Your task to perform on an android device: open app "Truecaller" (install if not already installed) and go to login screen Image 0: 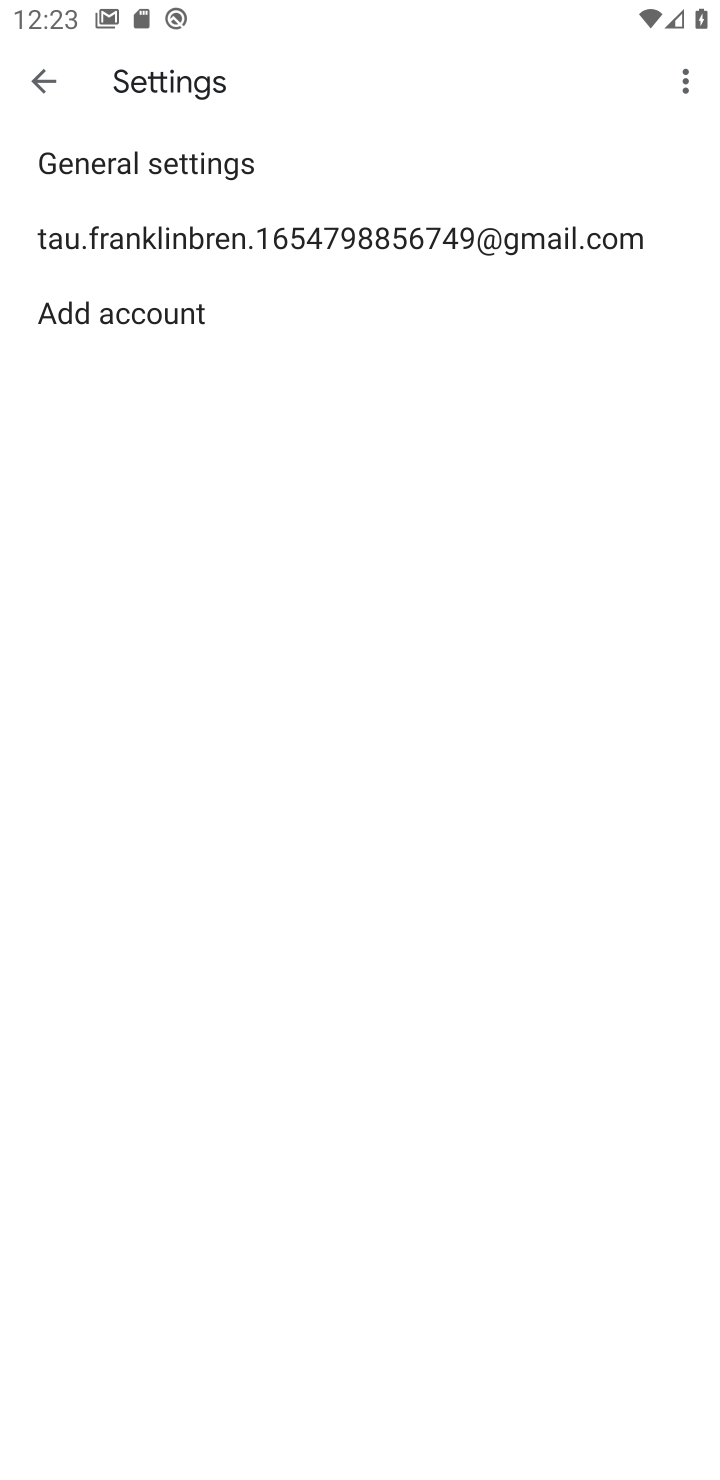
Step 0: press home button
Your task to perform on an android device: open app "Truecaller" (install if not already installed) and go to login screen Image 1: 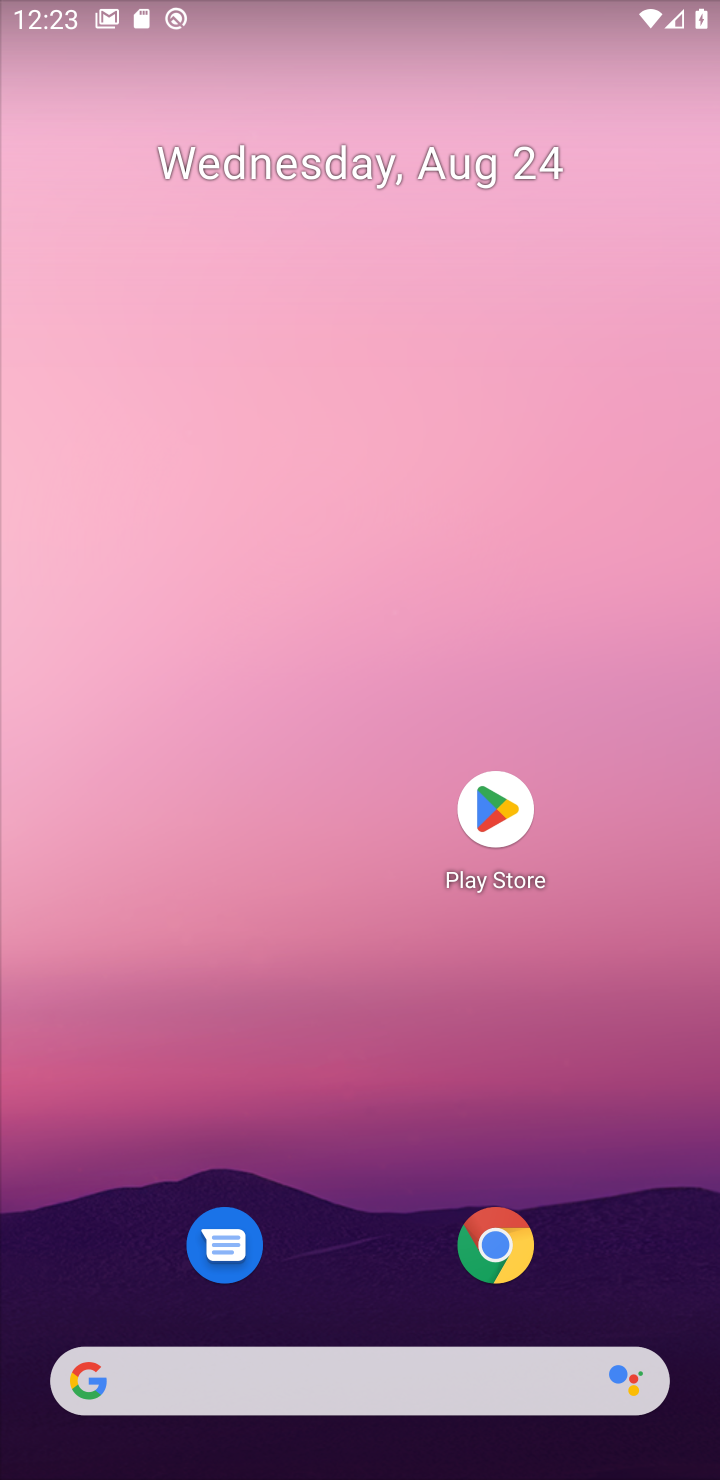
Step 1: click (506, 812)
Your task to perform on an android device: open app "Truecaller" (install if not already installed) and go to login screen Image 2: 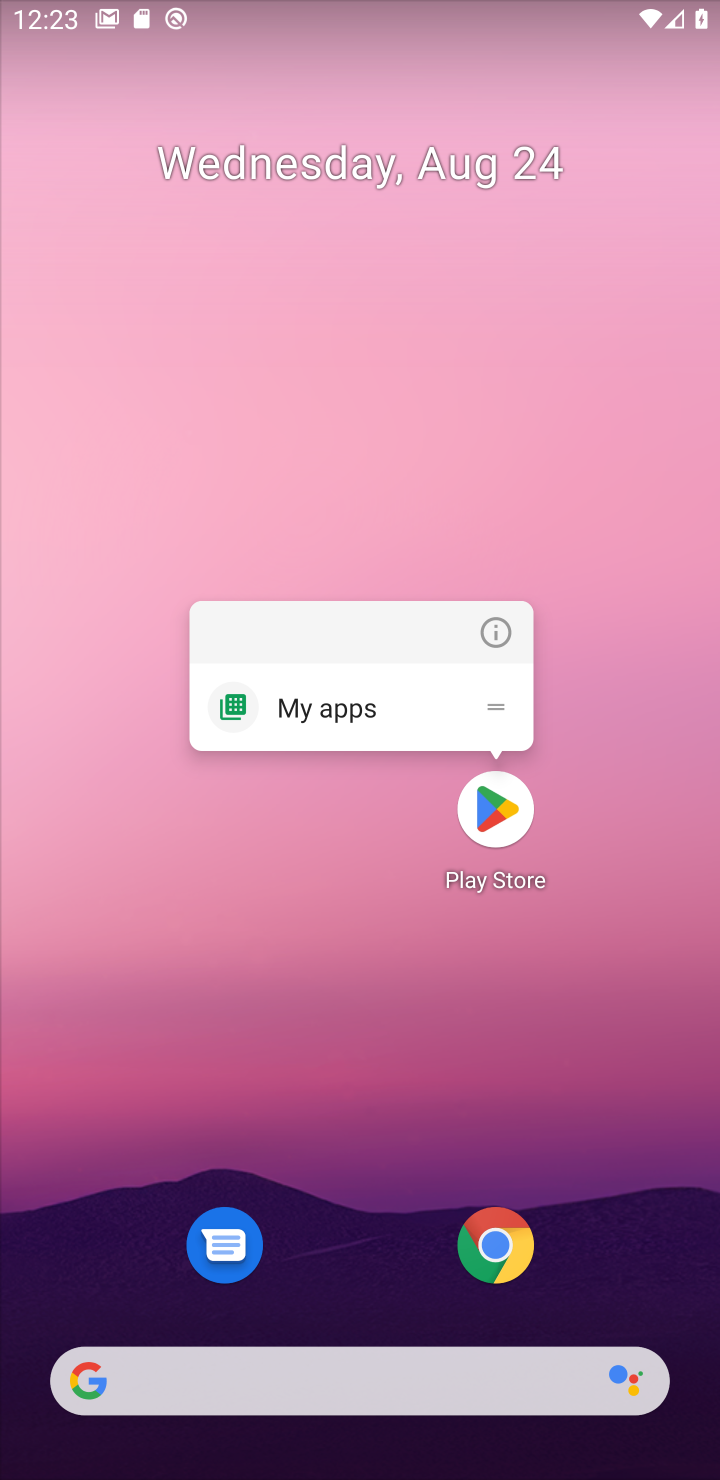
Step 2: click (506, 821)
Your task to perform on an android device: open app "Truecaller" (install if not already installed) and go to login screen Image 3: 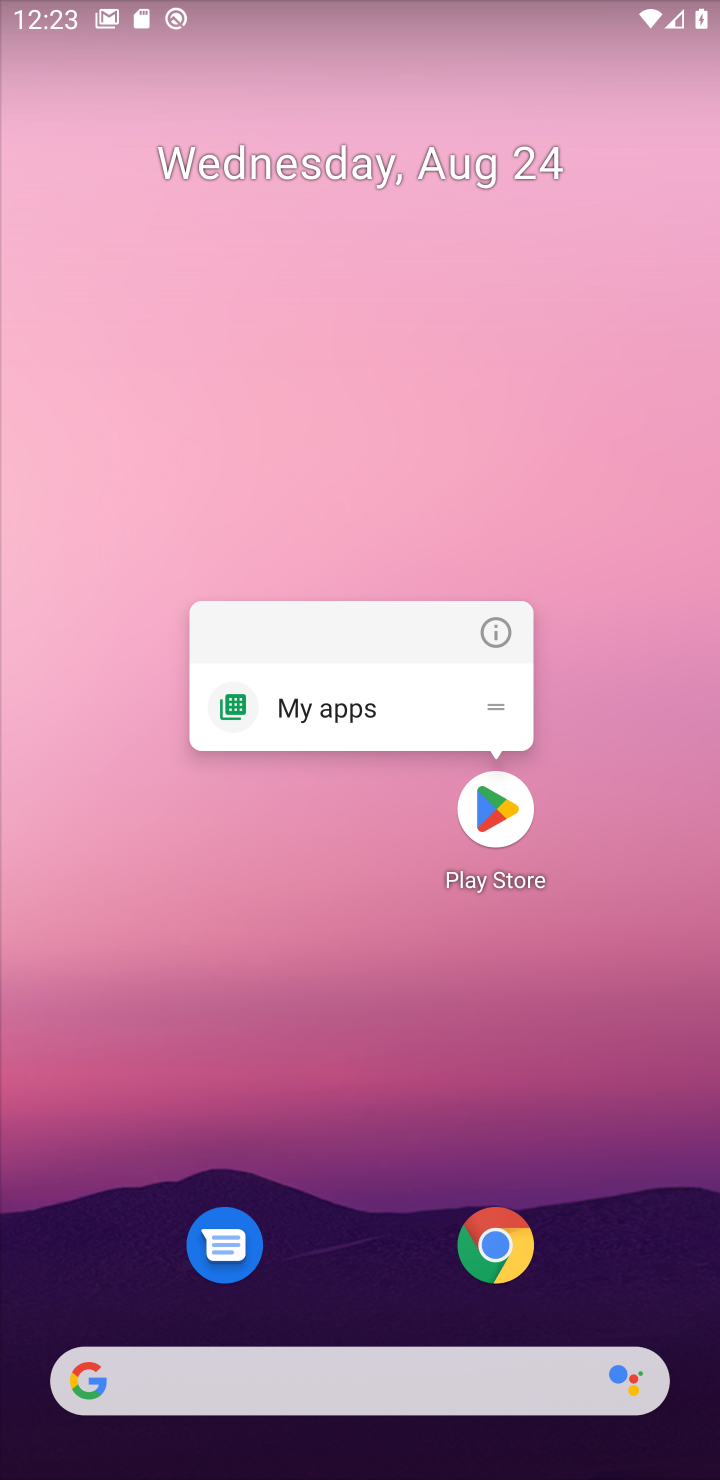
Step 3: click (489, 806)
Your task to perform on an android device: open app "Truecaller" (install if not already installed) and go to login screen Image 4: 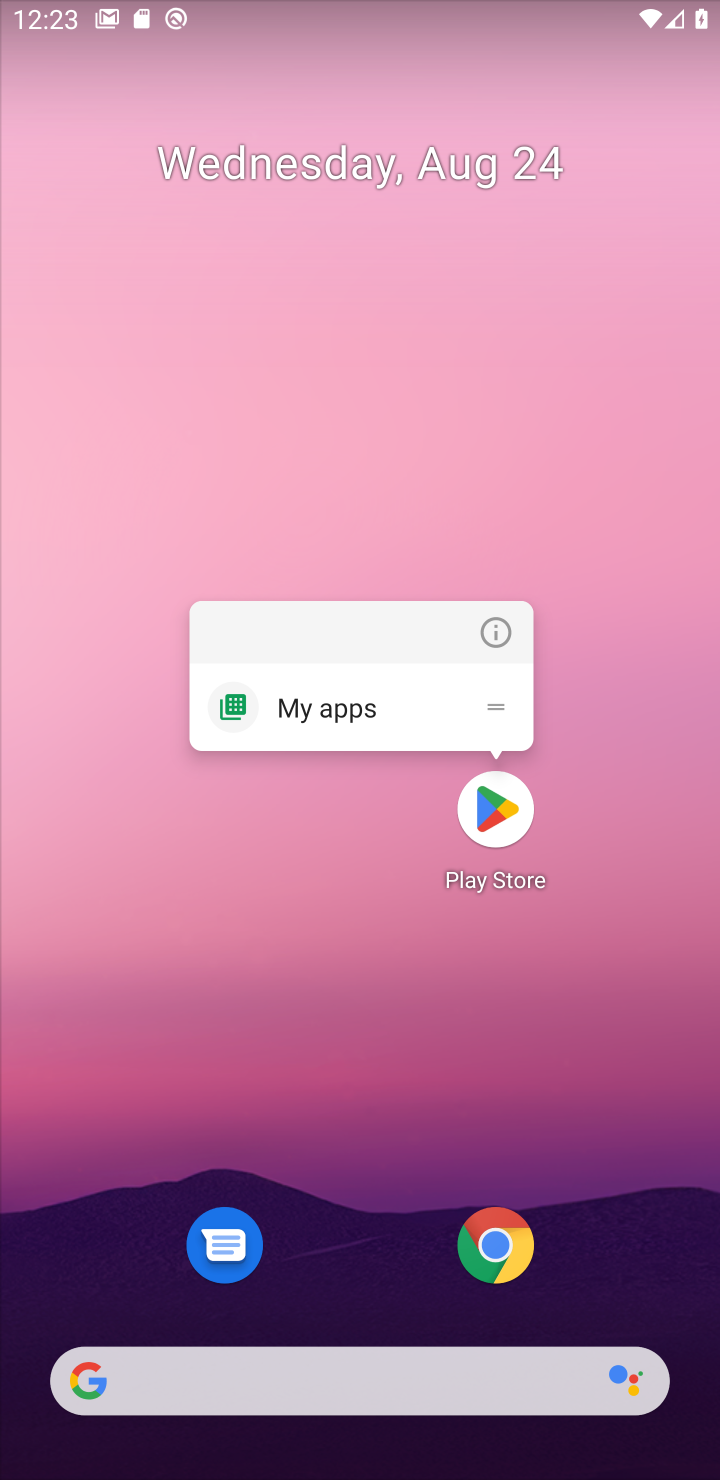
Step 4: click (489, 808)
Your task to perform on an android device: open app "Truecaller" (install if not already installed) and go to login screen Image 5: 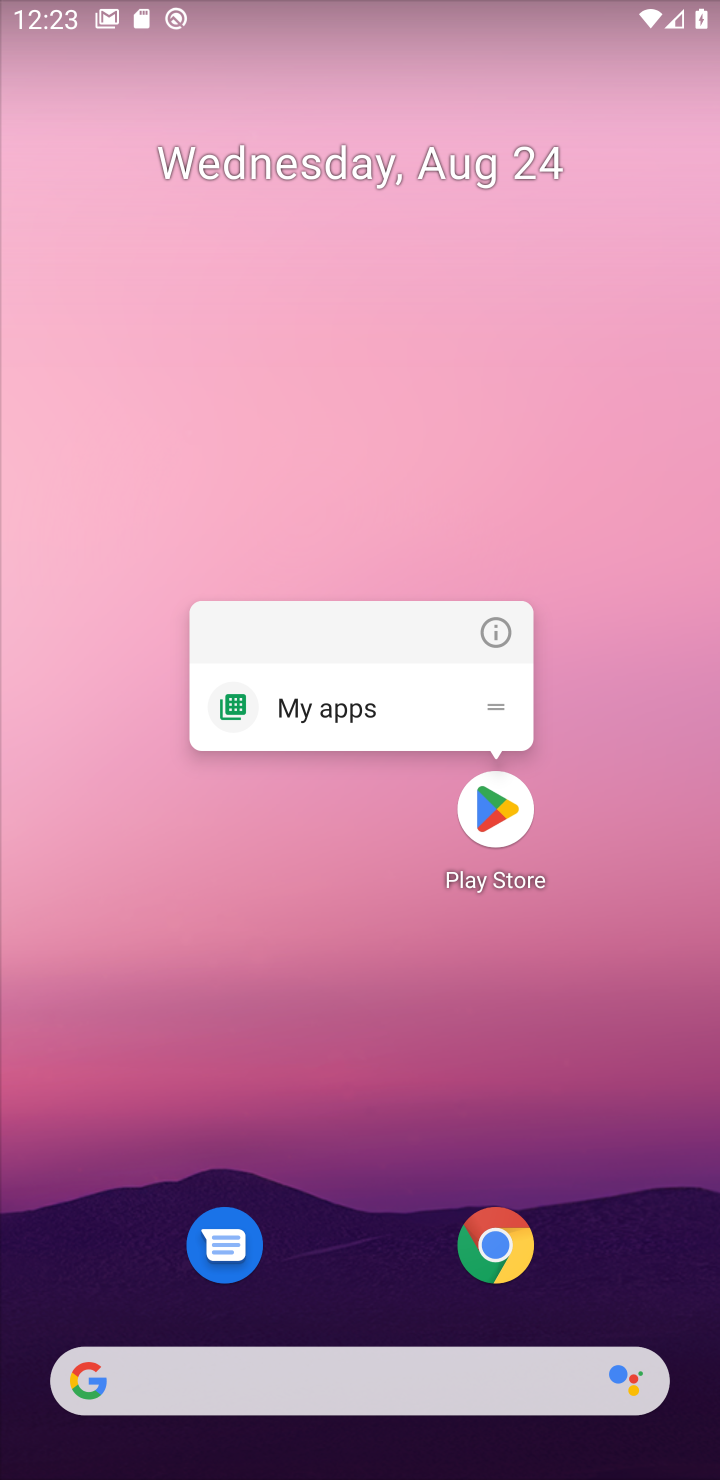
Step 5: click (489, 810)
Your task to perform on an android device: open app "Truecaller" (install if not already installed) and go to login screen Image 6: 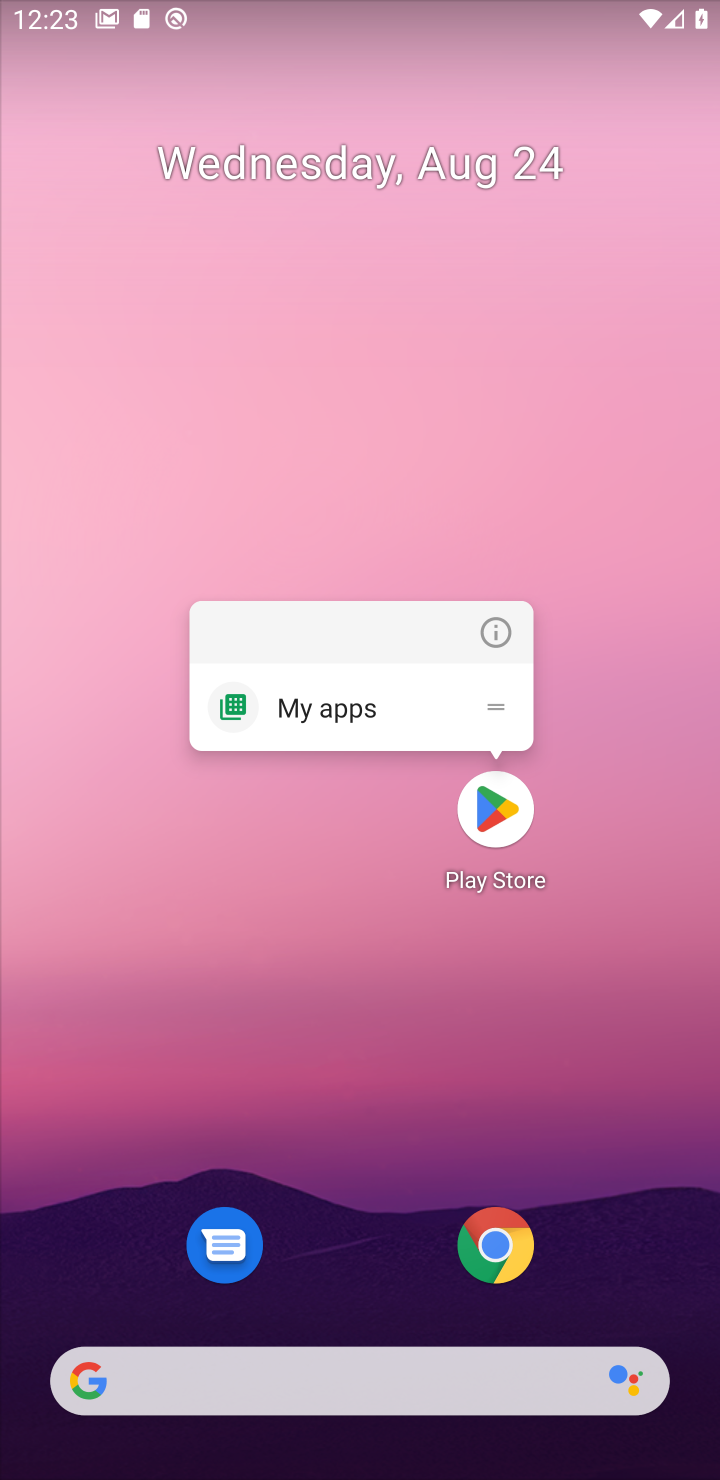
Step 6: click (489, 804)
Your task to perform on an android device: open app "Truecaller" (install if not already installed) and go to login screen Image 7: 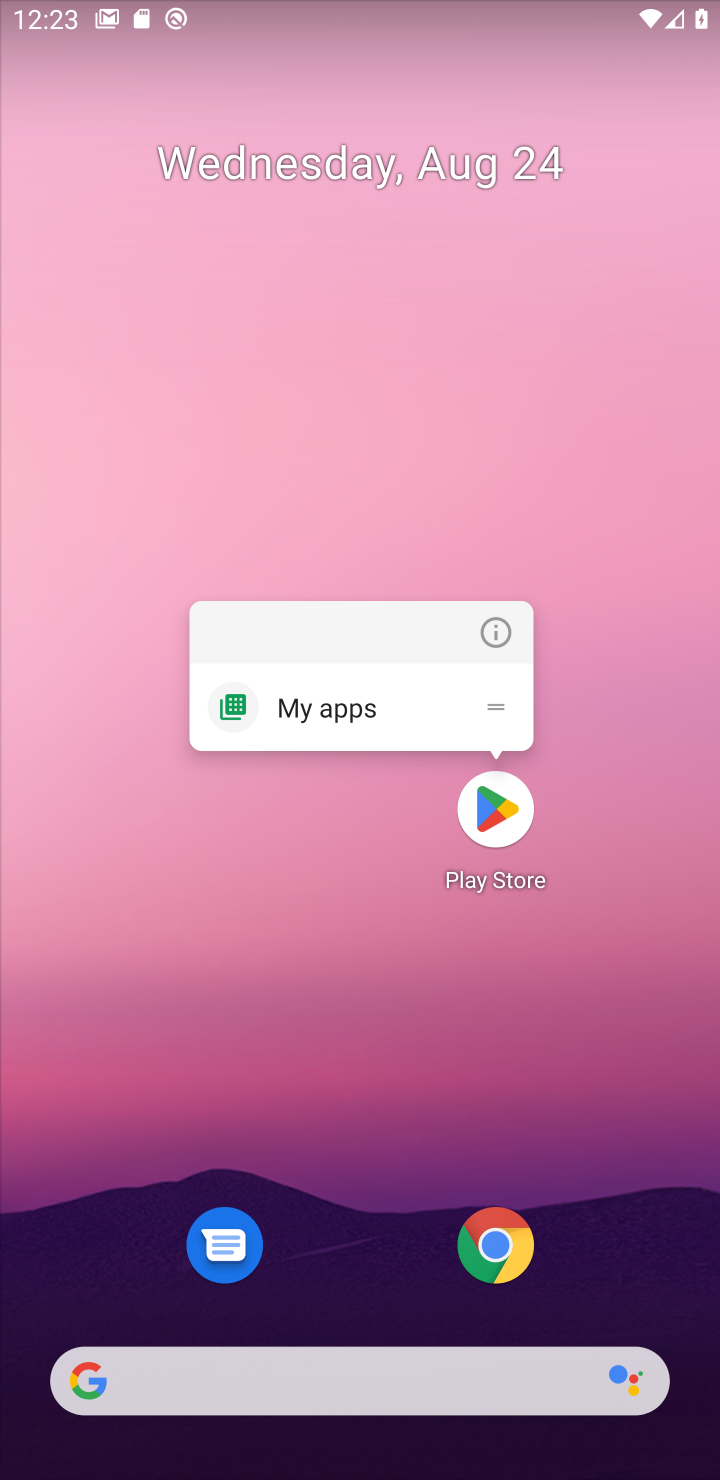
Step 7: click (499, 807)
Your task to perform on an android device: open app "Truecaller" (install if not already installed) and go to login screen Image 8: 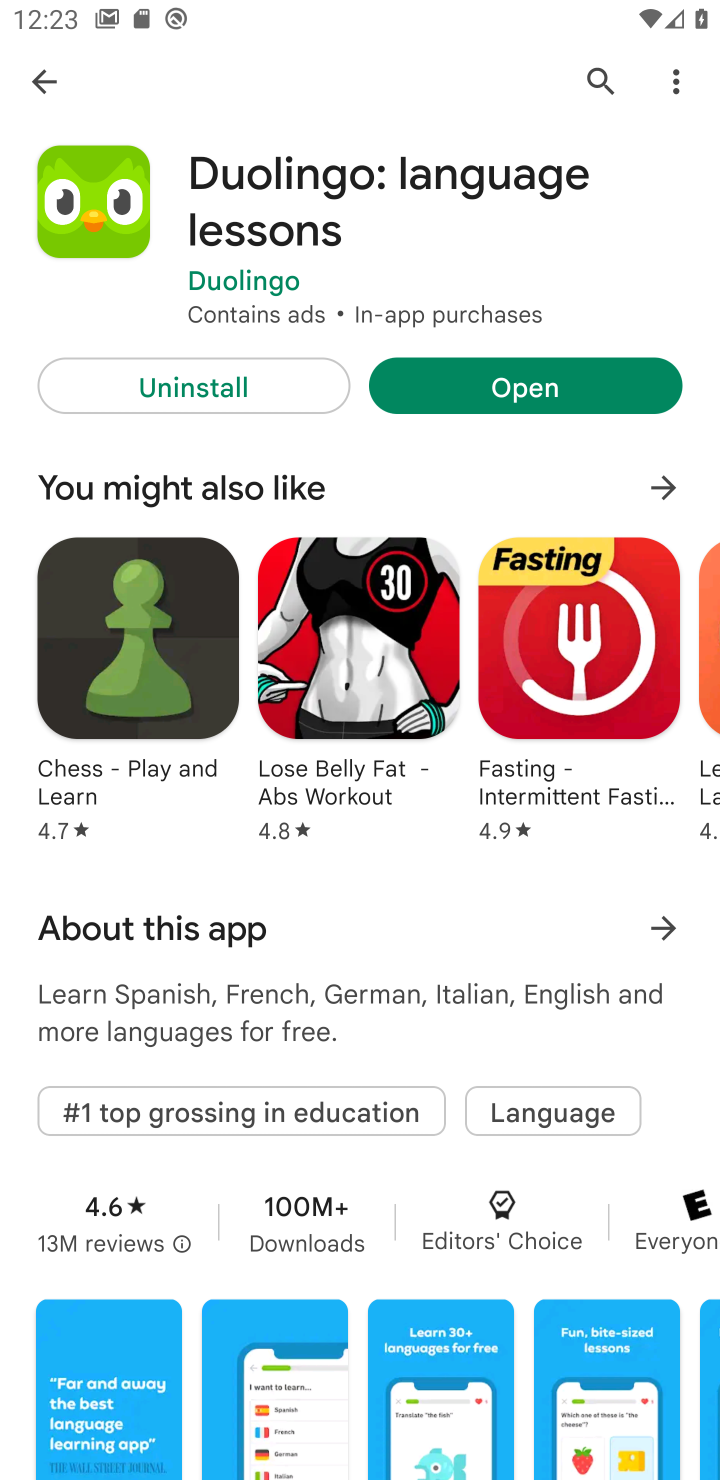
Step 8: click (601, 70)
Your task to perform on an android device: open app "Truecaller" (install if not already installed) and go to login screen Image 9: 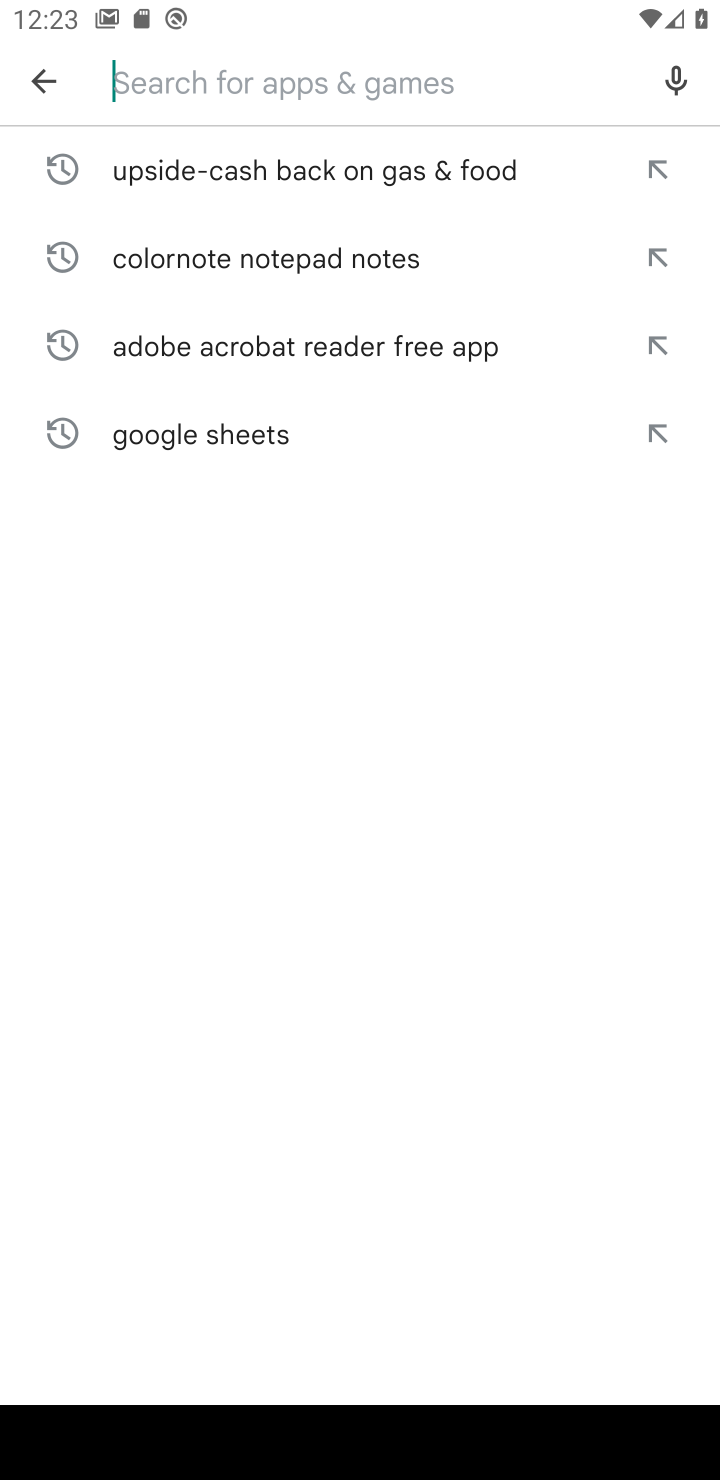
Step 9: type "Truecaller"
Your task to perform on an android device: open app "Truecaller" (install if not already installed) and go to login screen Image 10: 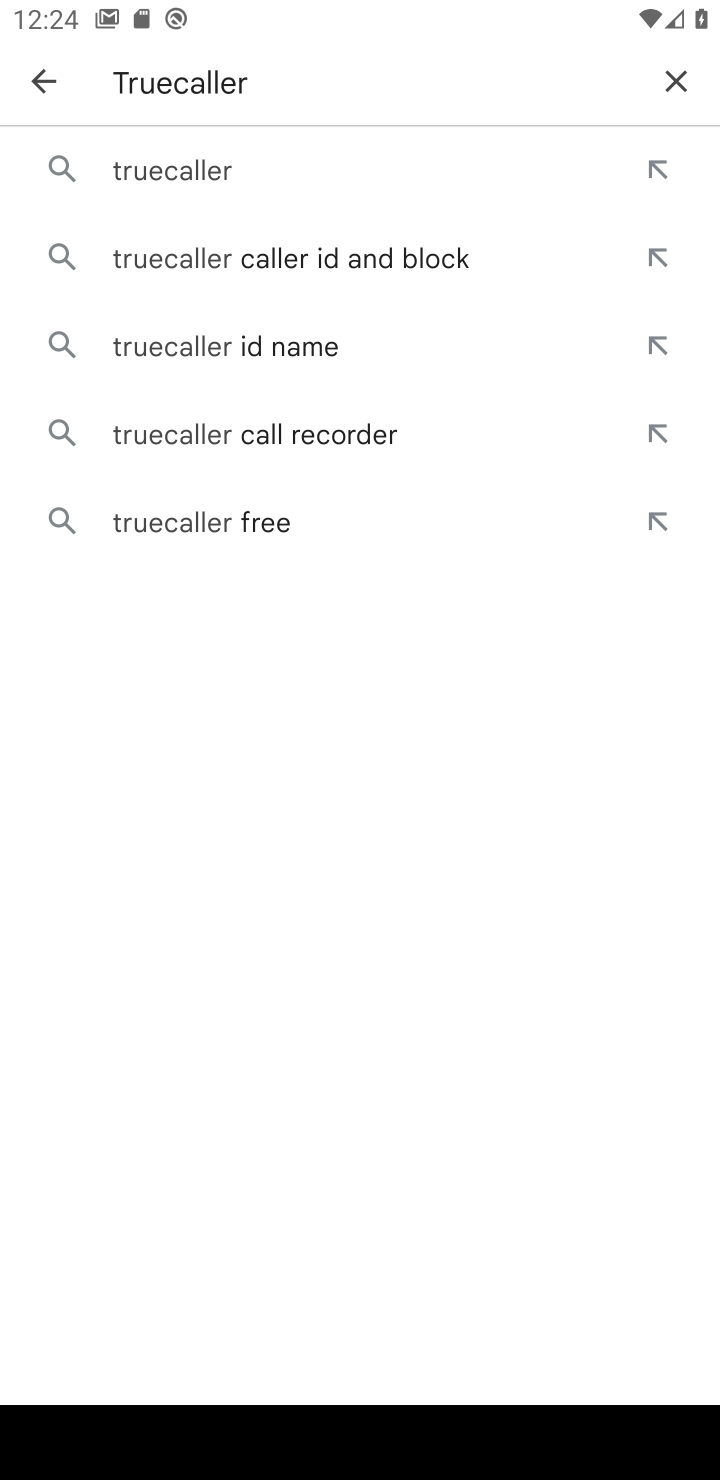
Step 10: click (172, 169)
Your task to perform on an android device: open app "Truecaller" (install if not already installed) and go to login screen Image 11: 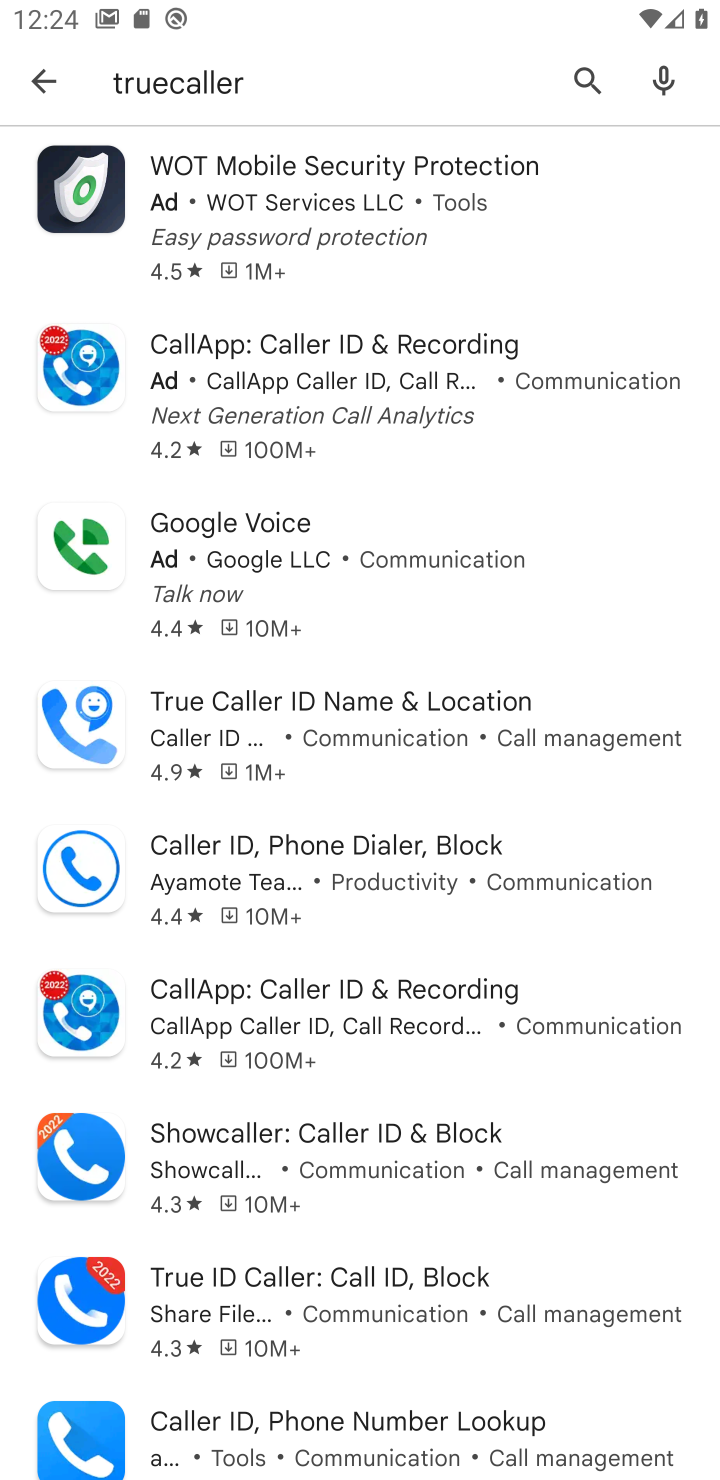
Step 11: task complete